Your task to perform on an android device: change alarm snooze length Image 0: 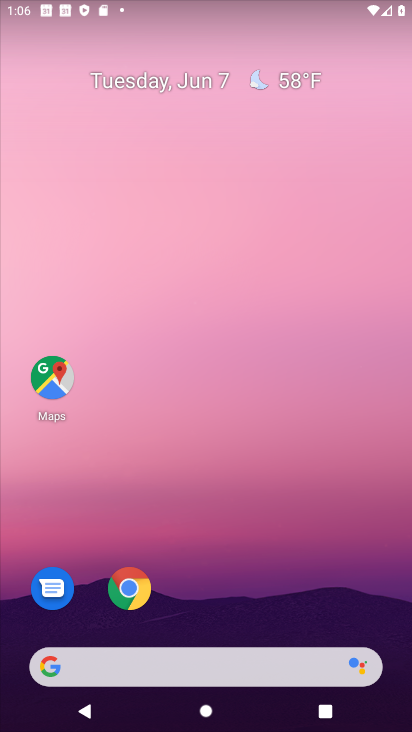
Step 0: drag from (262, 624) to (261, 157)
Your task to perform on an android device: change alarm snooze length Image 1: 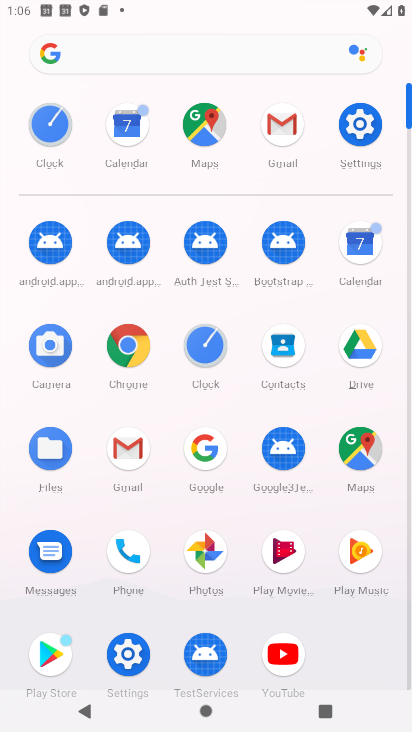
Step 1: click (374, 126)
Your task to perform on an android device: change alarm snooze length Image 2: 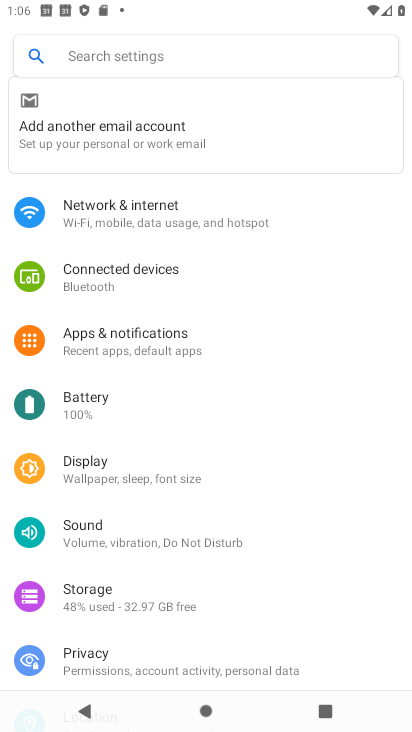
Step 2: press home button
Your task to perform on an android device: change alarm snooze length Image 3: 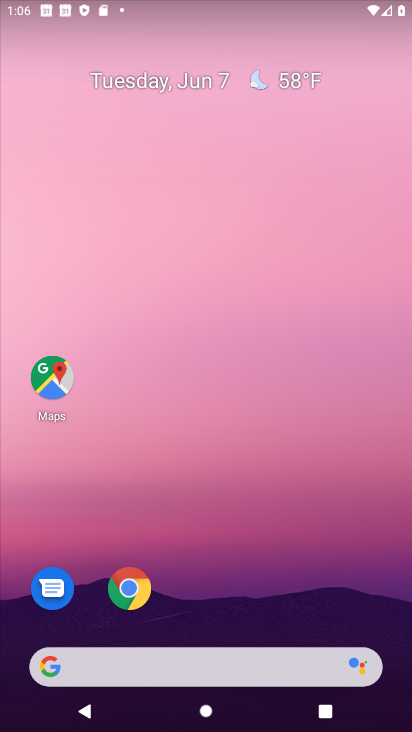
Step 3: drag from (282, 601) to (269, 167)
Your task to perform on an android device: change alarm snooze length Image 4: 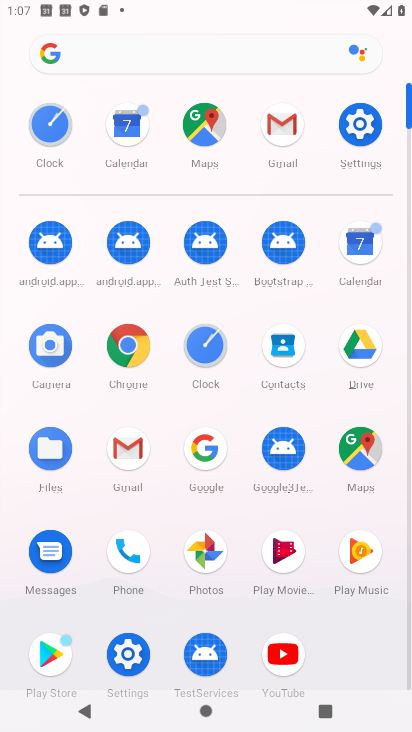
Step 4: click (130, 660)
Your task to perform on an android device: change alarm snooze length Image 5: 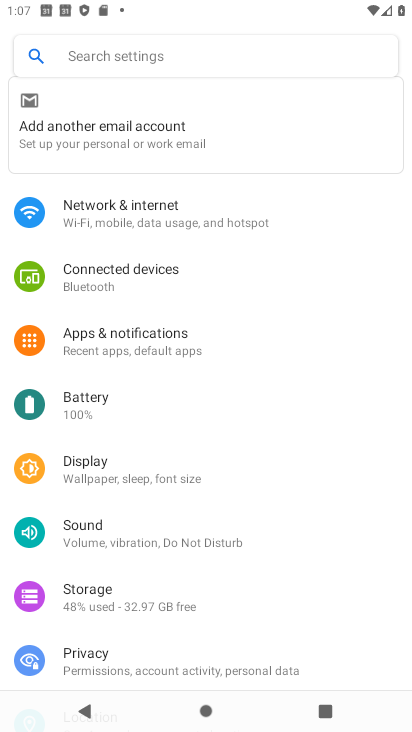
Step 5: task complete